Your task to perform on an android device: View the shopping cart on walmart.com. Search for razer thresher on walmart.com, select the first entry, and add it to the cart. Image 0: 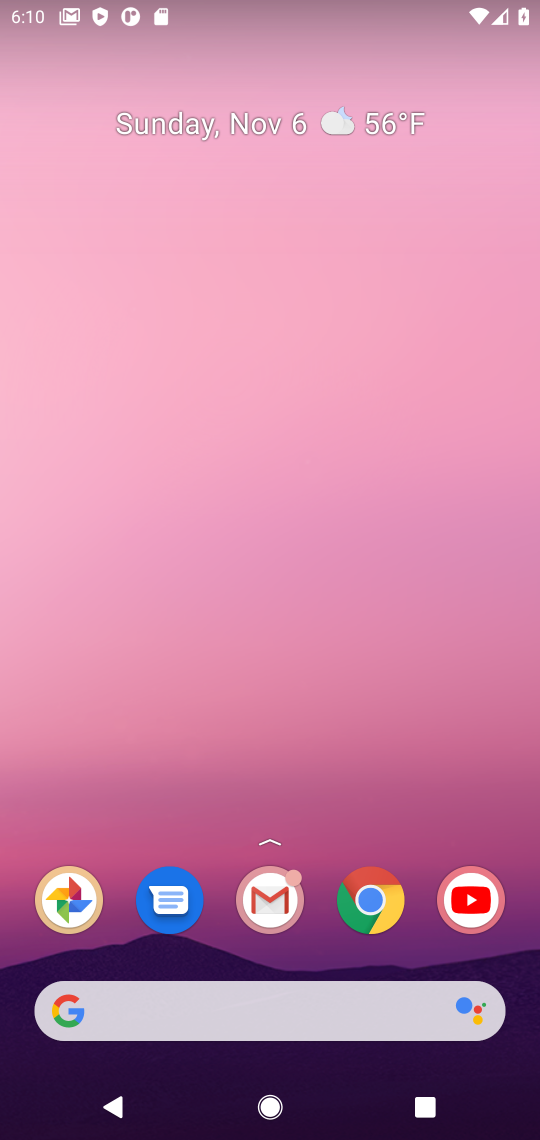
Step 0: drag from (301, 559) to (317, 50)
Your task to perform on an android device: View the shopping cart on walmart.com. Search for razer thresher on walmart.com, select the first entry, and add it to the cart. Image 1: 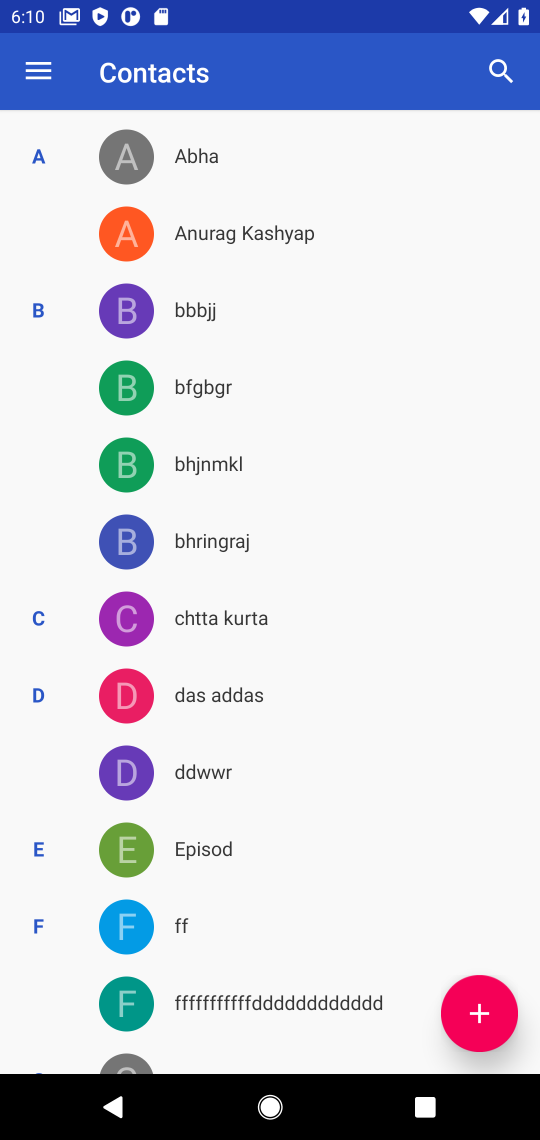
Step 1: press home button
Your task to perform on an android device: View the shopping cart on walmart.com. Search for razer thresher on walmart.com, select the first entry, and add it to the cart. Image 2: 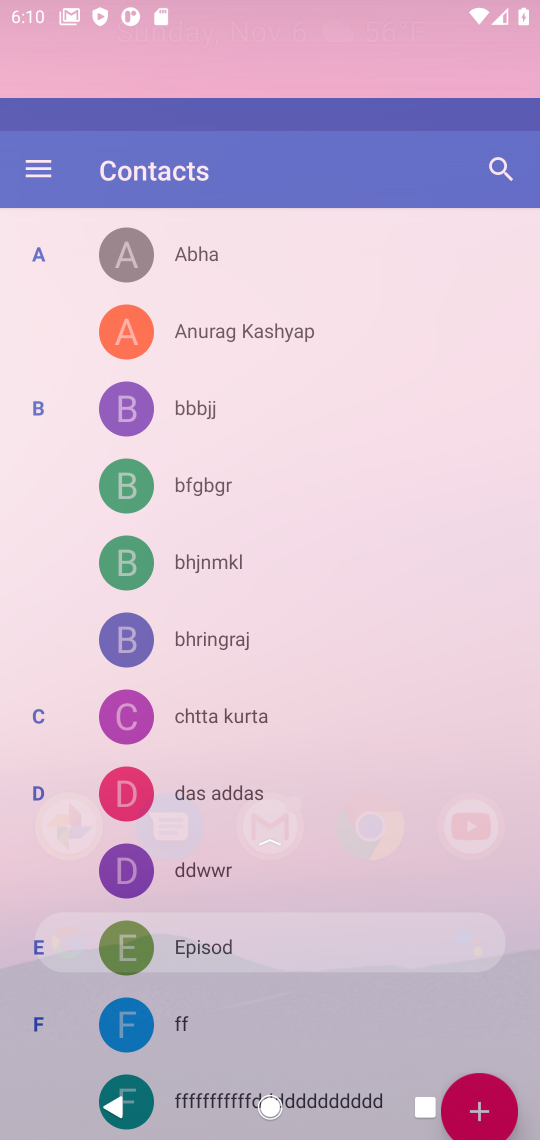
Step 2: press home button
Your task to perform on an android device: View the shopping cart on walmart.com. Search for razer thresher on walmart.com, select the first entry, and add it to the cart. Image 3: 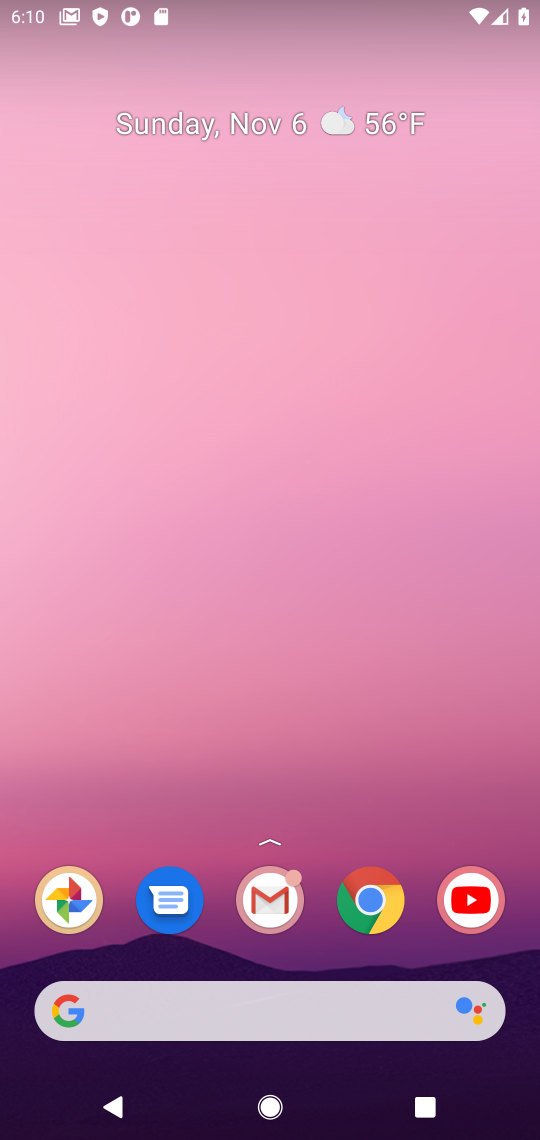
Step 3: drag from (329, 866) to (338, 135)
Your task to perform on an android device: View the shopping cart on walmart.com. Search for razer thresher on walmart.com, select the first entry, and add it to the cart. Image 4: 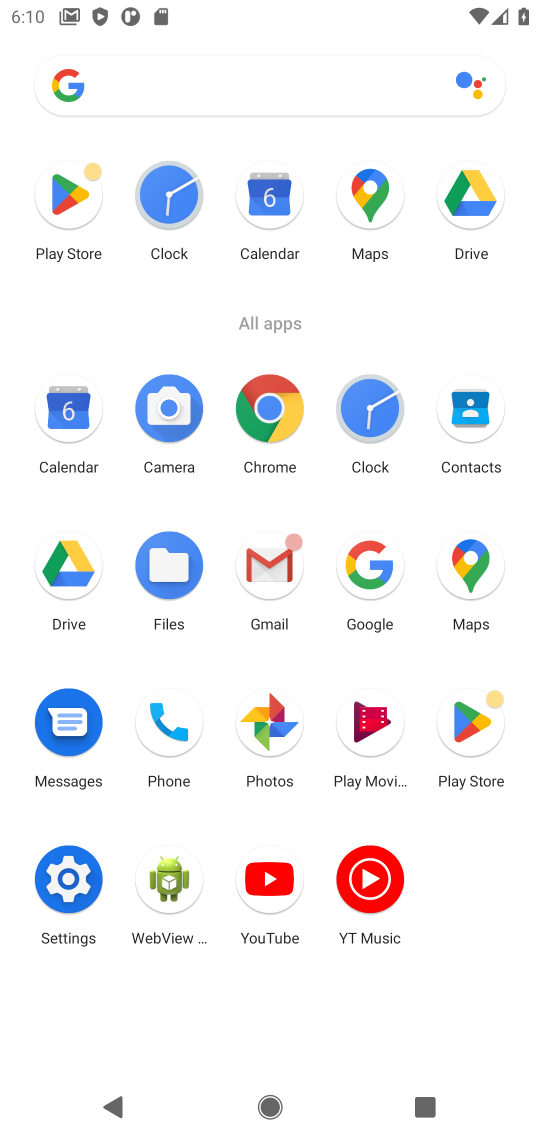
Step 4: click (267, 420)
Your task to perform on an android device: View the shopping cart on walmart.com. Search for razer thresher on walmart.com, select the first entry, and add it to the cart. Image 5: 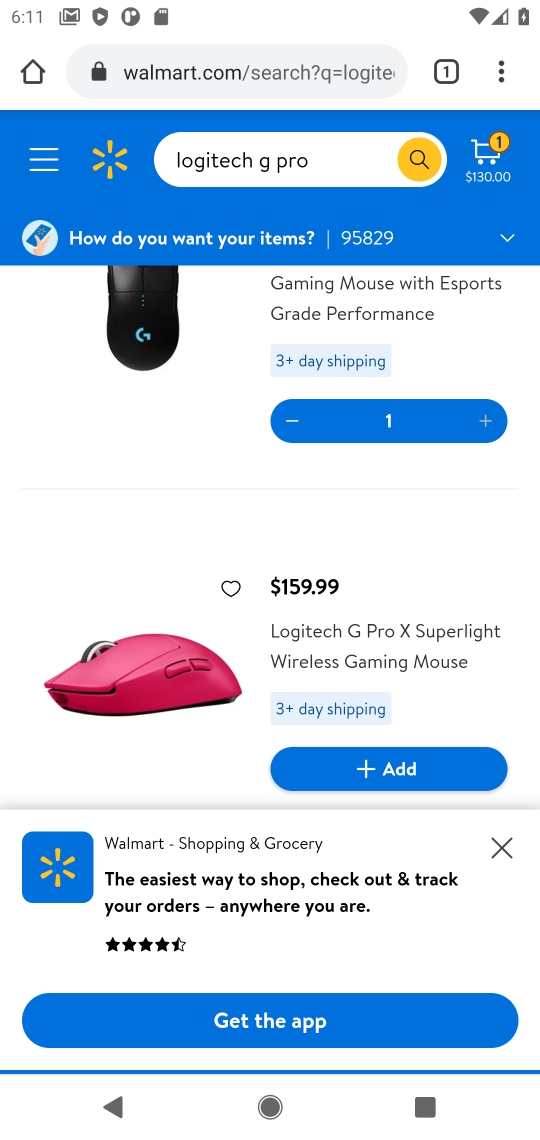
Step 5: click (504, 136)
Your task to perform on an android device: View the shopping cart on walmart.com. Search for razer thresher on walmart.com, select the first entry, and add it to the cart. Image 6: 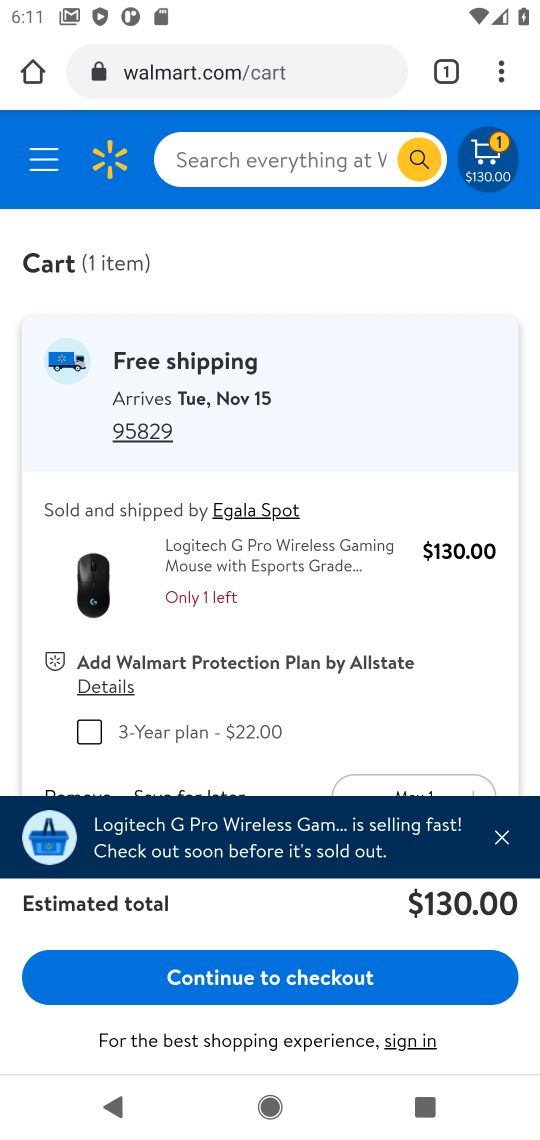
Step 6: task complete